Your task to perform on an android device: Open notification settings Image 0: 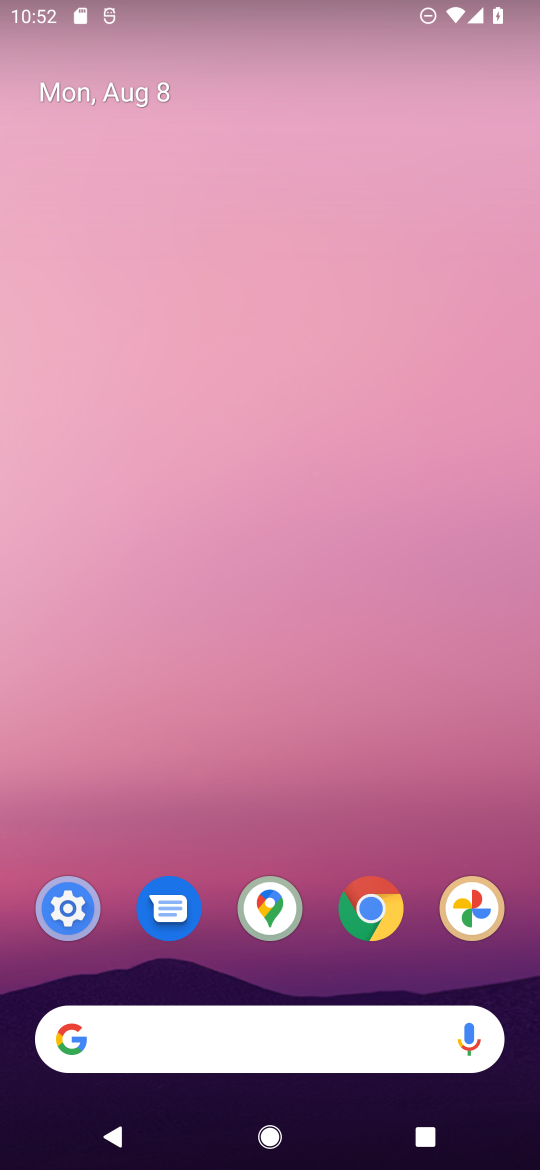
Step 0: drag from (317, 863) to (355, 9)
Your task to perform on an android device: Open notification settings Image 1: 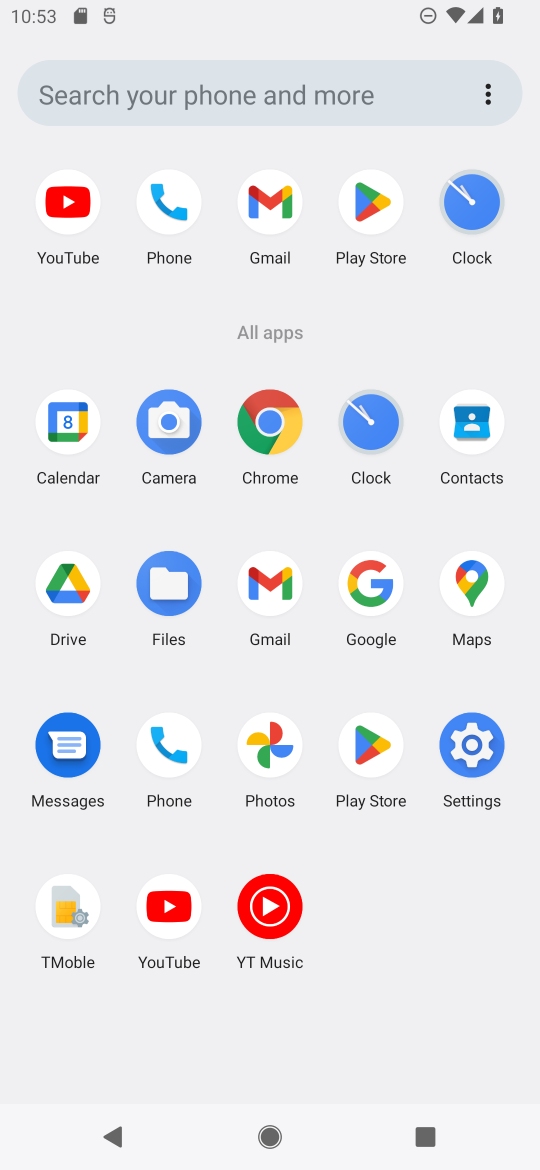
Step 1: click (465, 739)
Your task to perform on an android device: Open notification settings Image 2: 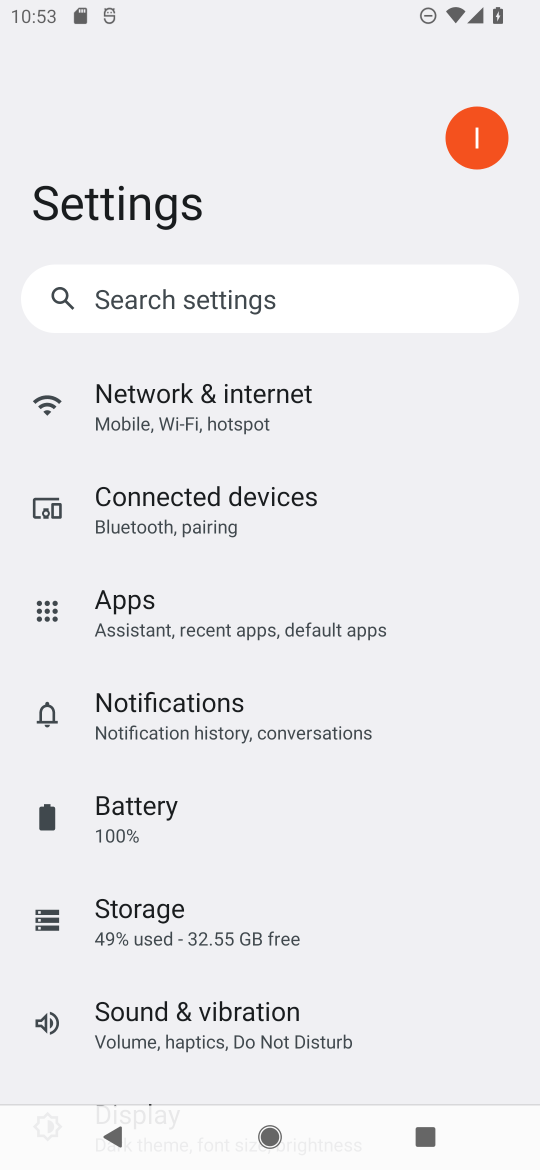
Step 2: click (254, 715)
Your task to perform on an android device: Open notification settings Image 3: 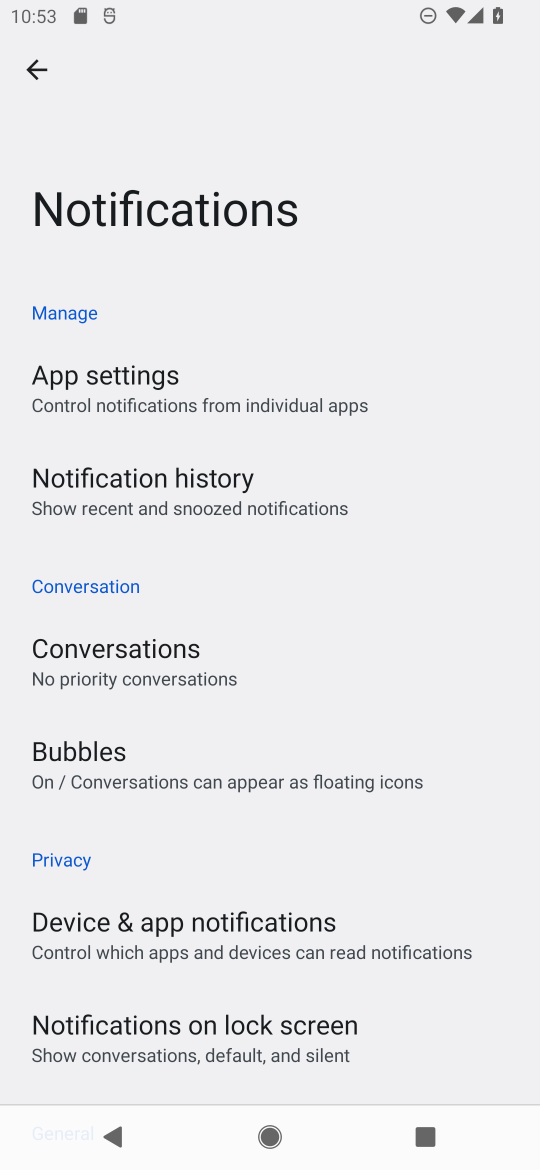
Step 3: task complete